Your task to perform on an android device: Add jbl charge 4 to the cart on ebay, then select checkout. Image 0: 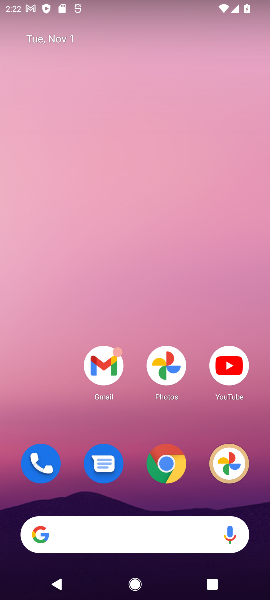
Step 0: drag from (162, 222) to (166, 55)
Your task to perform on an android device: Add jbl charge 4 to the cart on ebay, then select checkout. Image 1: 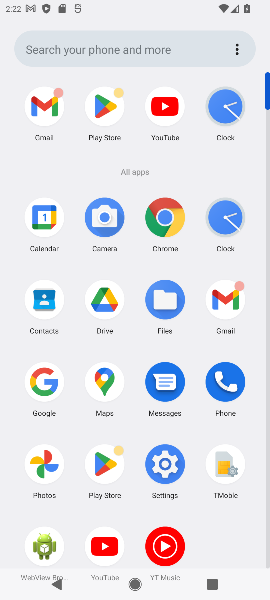
Step 1: click (162, 219)
Your task to perform on an android device: Add jbl charge 4 to the cart on ebay, then select checkout. Image 2: 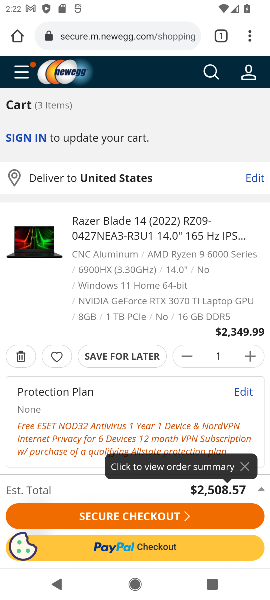
Step 2: click (141, 35)
Your task to perform on an android device: Add jbl charge 4 to the cart on ebay, then select checkout. Image 3: 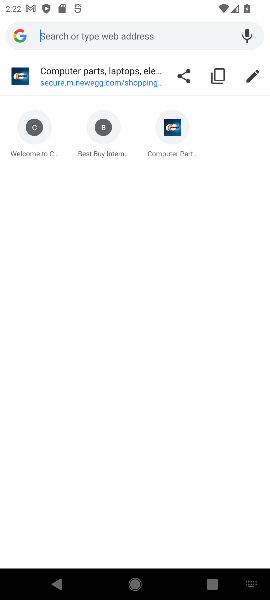
Step 3: type "ebay.com"
Your task to perform on an android device: Add jbl charge 4 to the cart on ebay, then select checkout. Image 4: 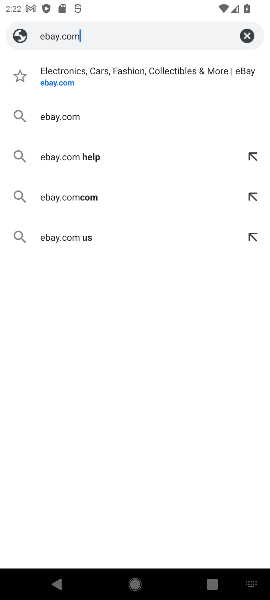
Step 4: press enter
Your task to perform on an android device: Add jbl charge 4 to the cart on ebay, then select checkout. Image 5: 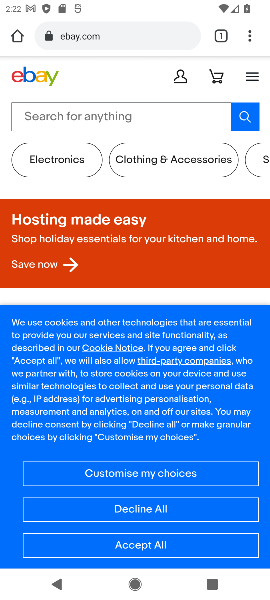
Step 5: click (134, 110)
Your task to perform on an android device: Add jbl charge 4 to the cart on ebay, then select checkout. Image 6: 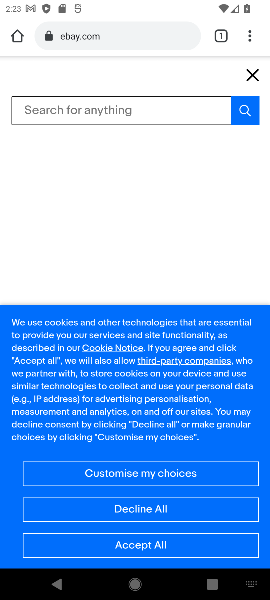
Step 6: type "jbl charge 4"
Your task to perform on an android device: Add jbl charge 4 to the cart on ebay, then select checkout. Image 7: 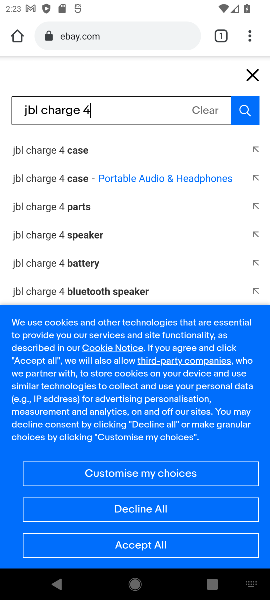
Step 7: press enter
Your task to perform on an android device: Add jbl charge 4 to the cart on ebay, then select checkout. Image 8: 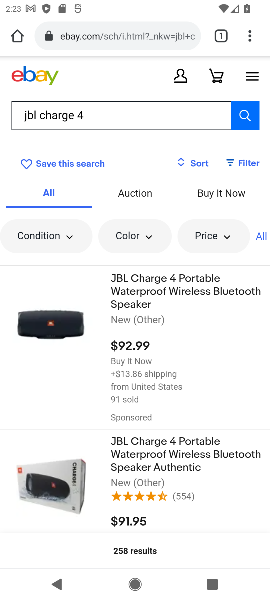
Step 8: click (80, 324)
Your task to perform on an android device: Add jbl charge 4 to the cart on ebay, then select checkout. Image 9: 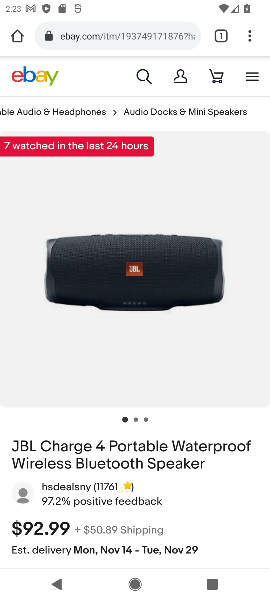
Step 9: drag from (151, 493) to (184, 168)
Your task to perform on an android device: Add jbl charge 4 to the cart on ebay, then select checkout. Image 10: 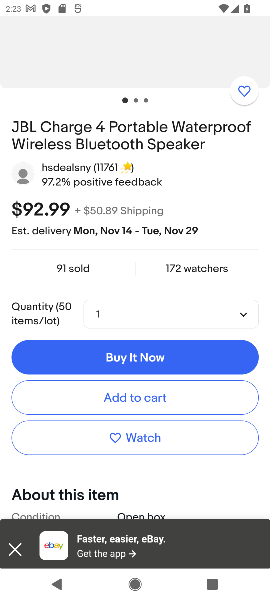
Step 10: click (159, 404)
Your task to perform on an android device: Add jbl charge 4 to the cart on ebay, then select checkout. Image 11: 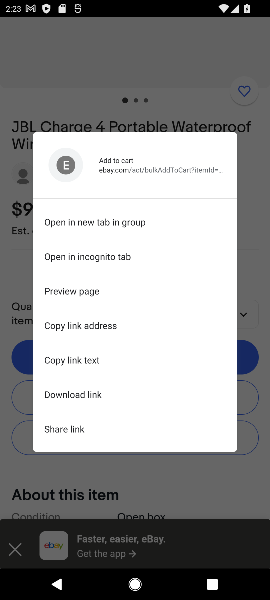
Step 11: click (264, 381)
Your task to perform on an android device: Add jbl charge 4 to the cart on ebay, then select checkout. Image 12: 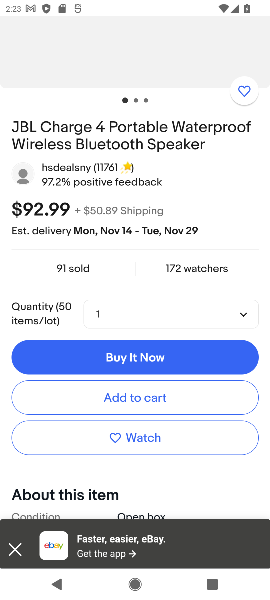
Step 12: click (165, 393)
Your task to perform on an android device: Add jbl charge 4 to the cart on ebay, then select checkout. Image 13: 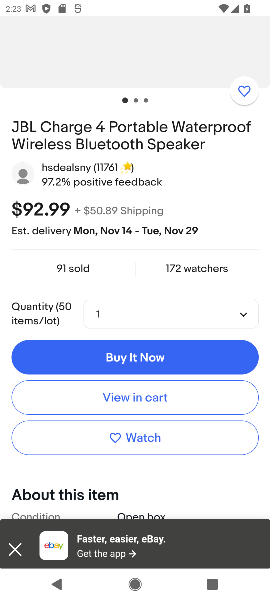
Step 13: task complete